Your task to perform on an android device: Open privacy settings Image 0: 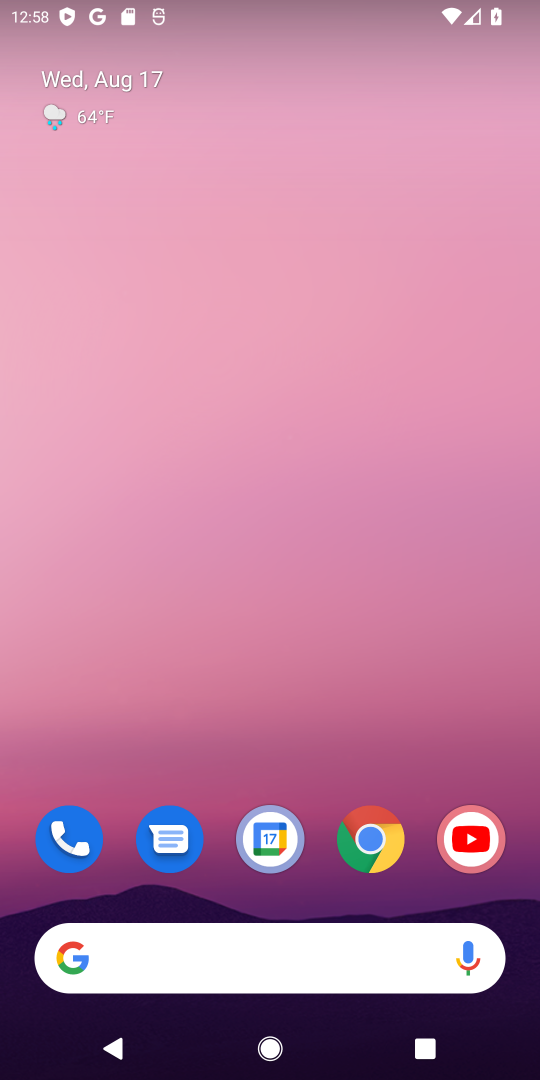
Step 0: drag from (226, 955) to (282, 302)
Your task to perform on an android device: Open privacy settings Image 1: 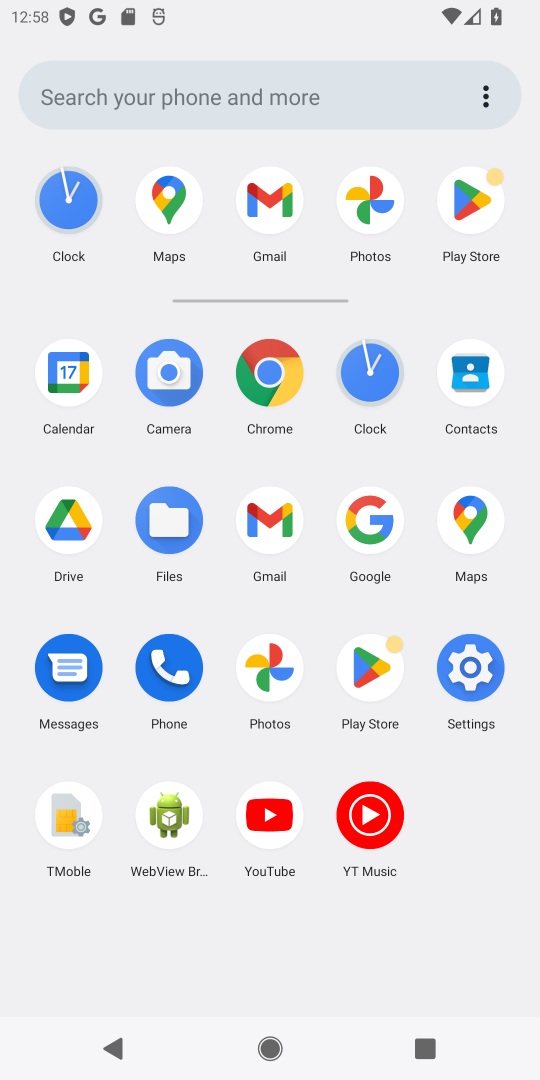
Step 1: click (471, 671)
Your task to perform on an android device: Open privacy settings Image 2: 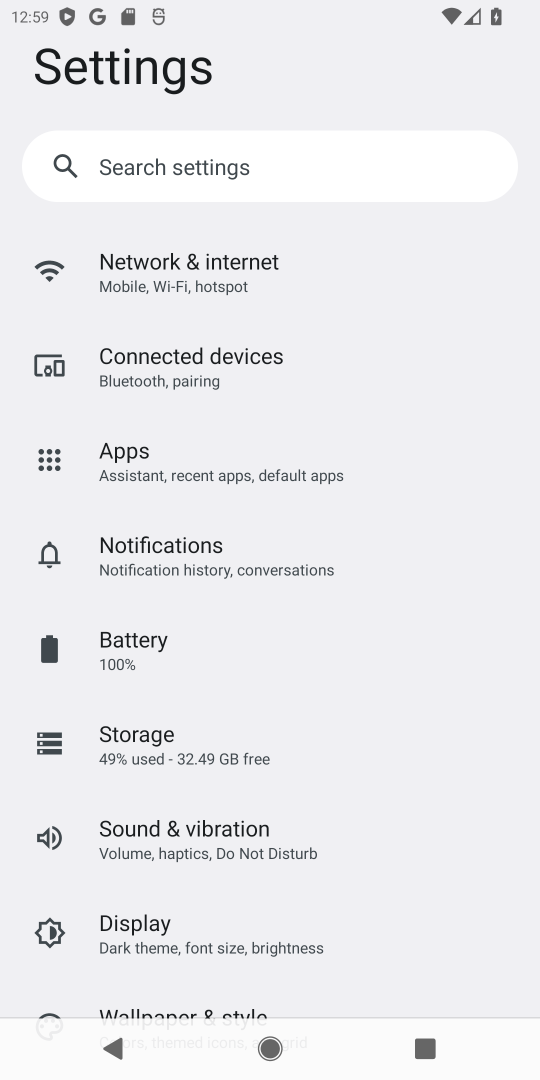
Step 2: drag from (200, 880) to (248, 658)
Your task to perform on an android device: Open privacy settings Image 3: 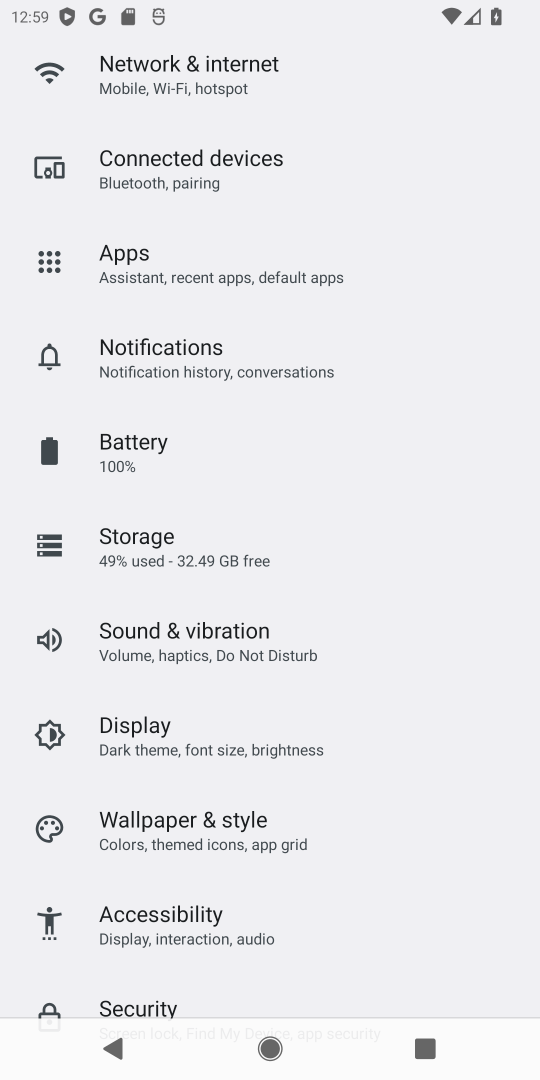
Step 3: drag from (172, 891) to (255, 695)
Your task to perform on an android device: Open privacy settings Image 4: 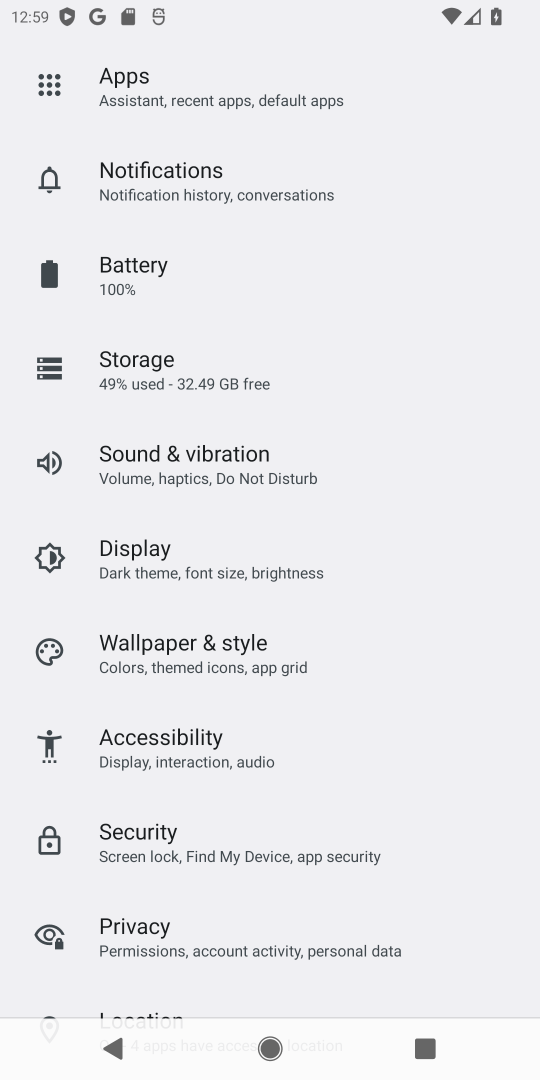
Step 4: click (182, 953)
Your task to perform on an android device: Open privacy settings Image 5: 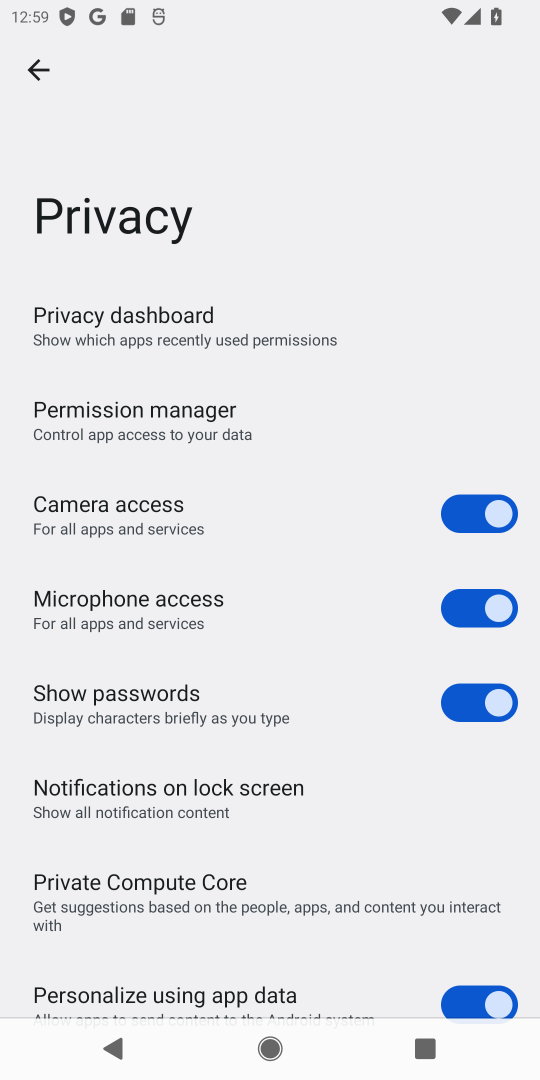
Step 5: task complete